Your task to perform on an android device: toggle location history Image 0: 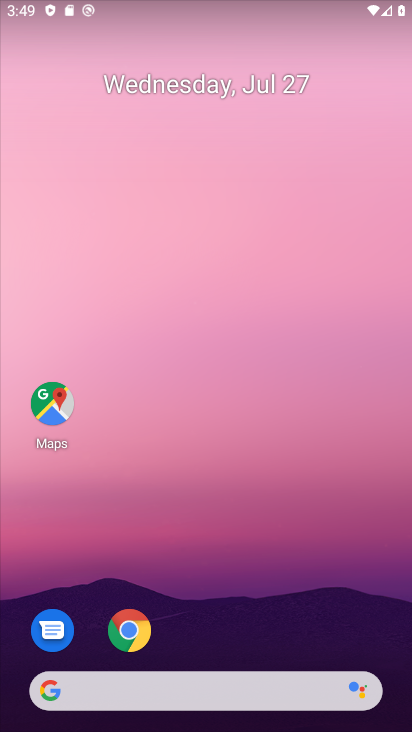
Step 0: press home button
Your task to perform on an android device: toggle location history Image 1: 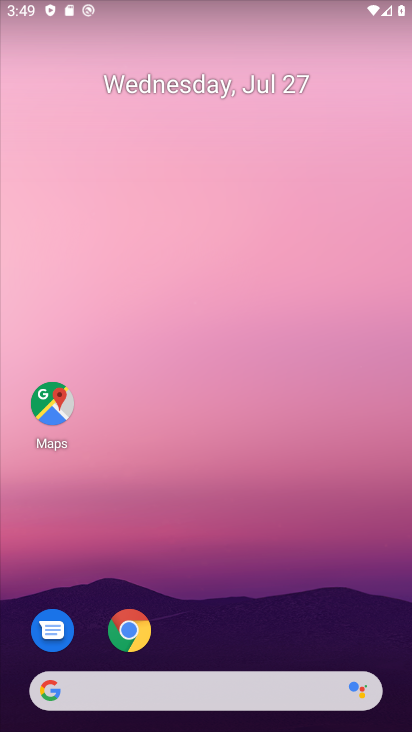
Step 1: drag from (225, 651) to (255, 61)
Your task to perform on an android device: toggle location history Image 2: 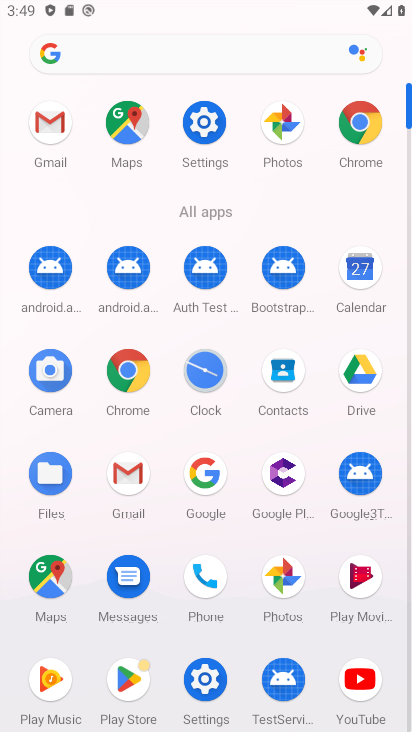
Step 2: click (205, 119)
Your task to perform on an android device: toggle location history Image 3: 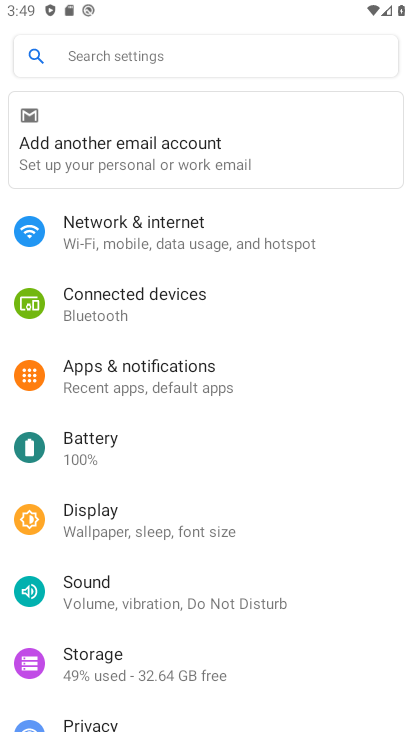
Step 3: drag from (140, 656) to (169, 140)
Your task to perform on an android device: toggle location history Image 4: 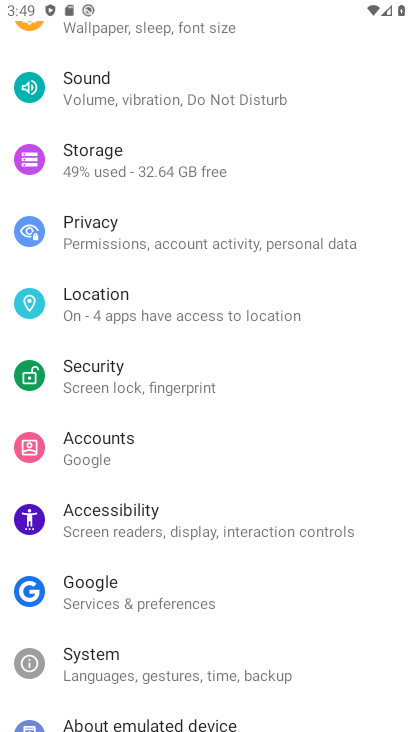
Step 4: click (125, 304)
Your task to perform on an android device: toggle location history Image 5: 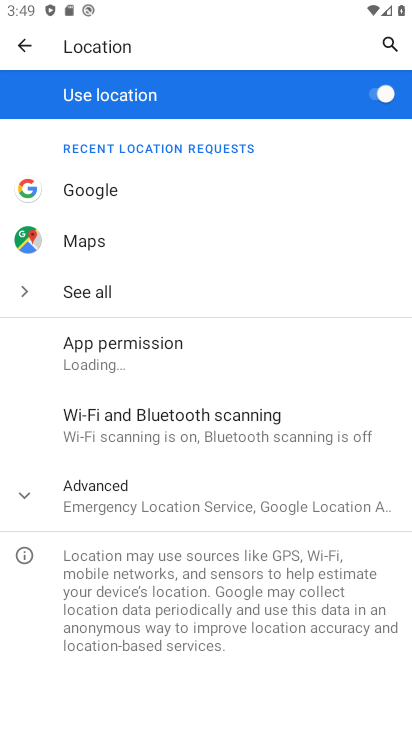
Step 5: click (23, 492)
Your task to perform on an android device: toggle location history Image 6: 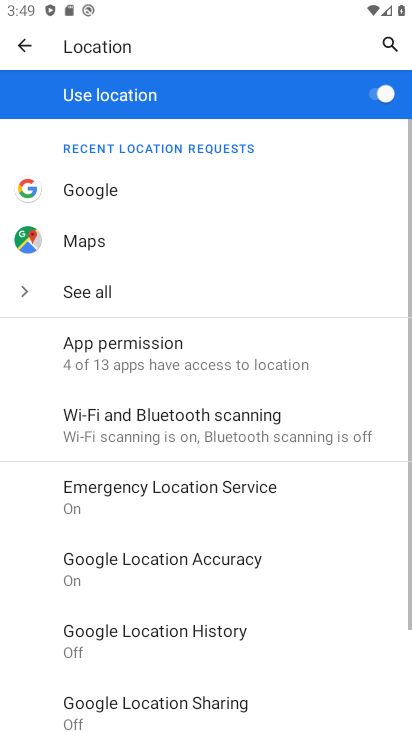
Step 6: click (272, 638)
Your task to perform on an android device: toggle location history Image 7: 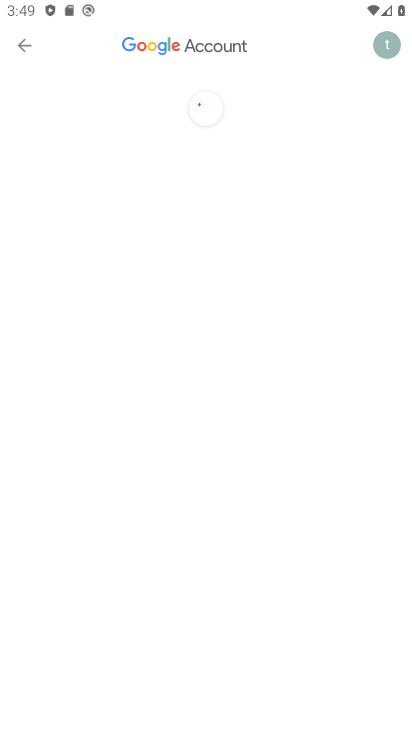
Step 7: task complete